Your task to perform on an android device: check data usage Image 0: 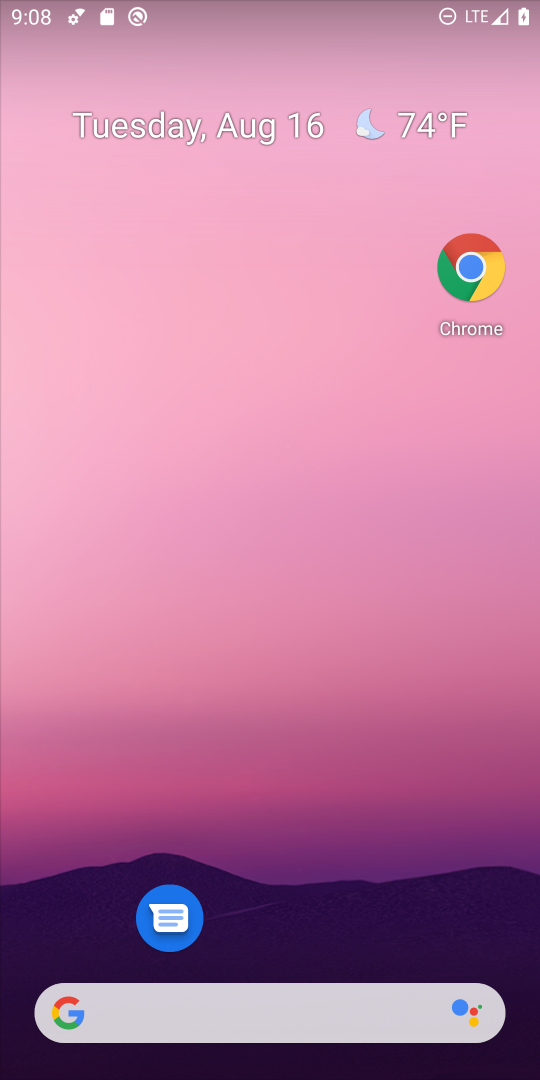
Step 0: drag from (367, 628) to (394, 146)
Your task to perform on an android device: check data usage Image 1: 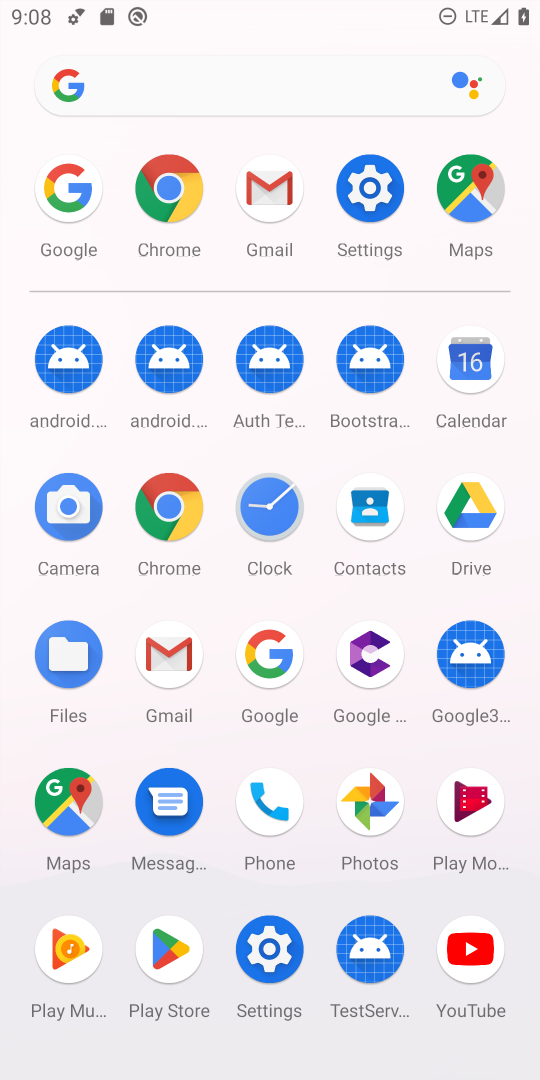
Step 1: click (367, 211)
Your task to perform on an android device: check data usage Image 2: 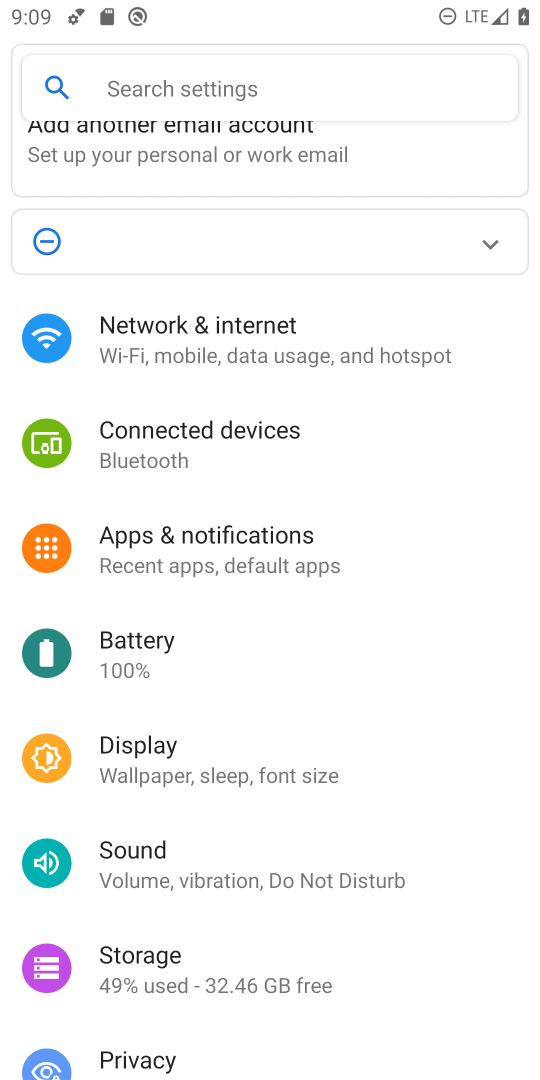
Step 2: click (279, 312)
Your task to perform on an android device: check data usage Image 3: 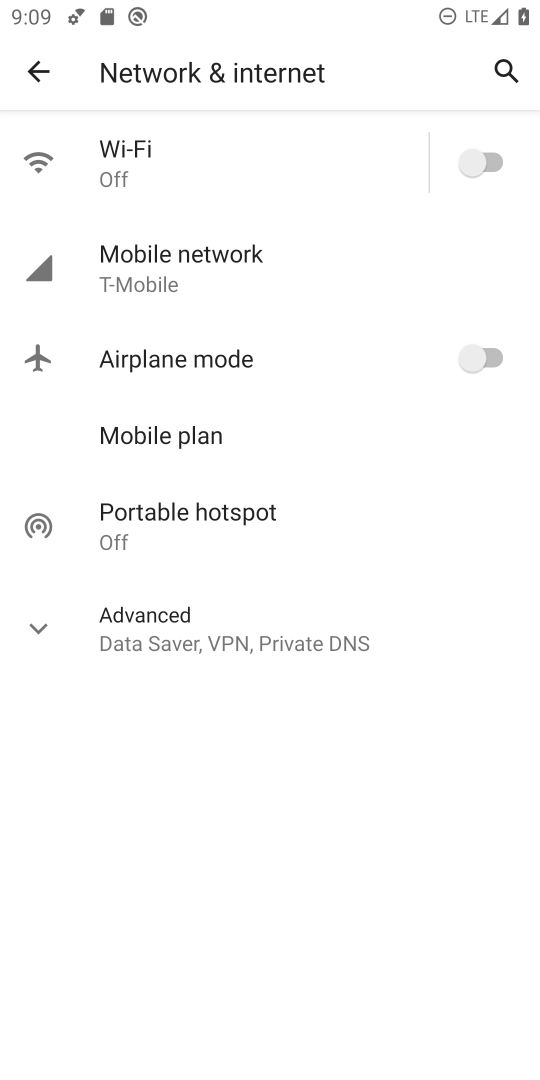
Step 3: click (225, 292)
Your task to perform on an android device: check data usage Image 4: 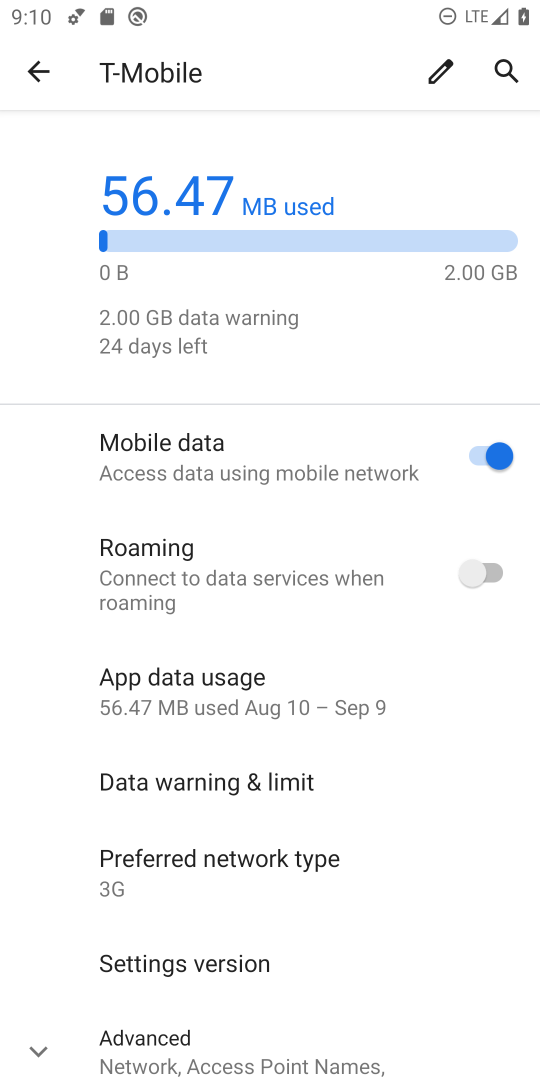
Step 4: click (272, 686)
Your task to perform on an android device: check data usage Image 5: 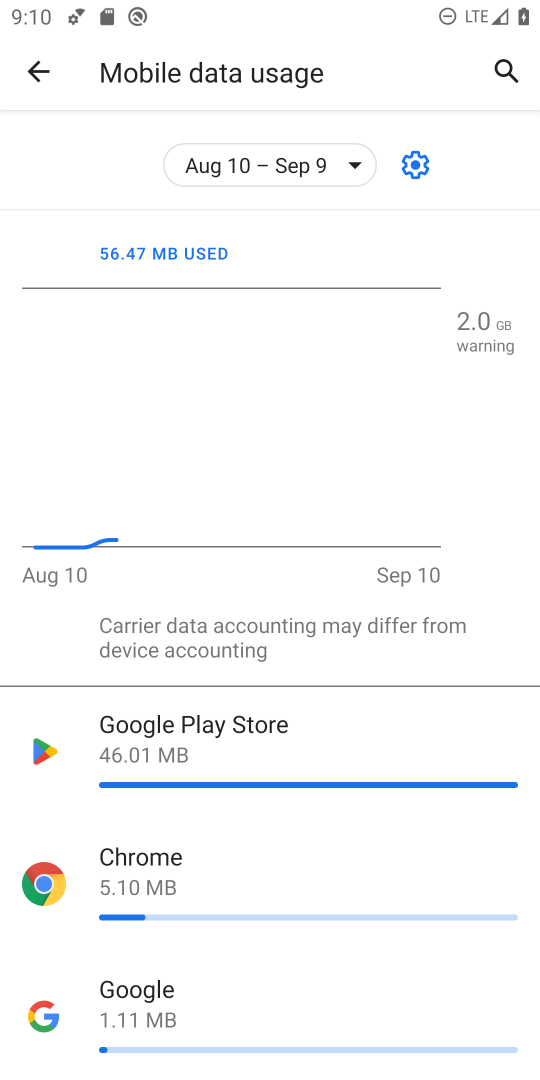
Step 5: task complete